Your task to perform on an android device: refresh tabs in the chrome app Image 0: 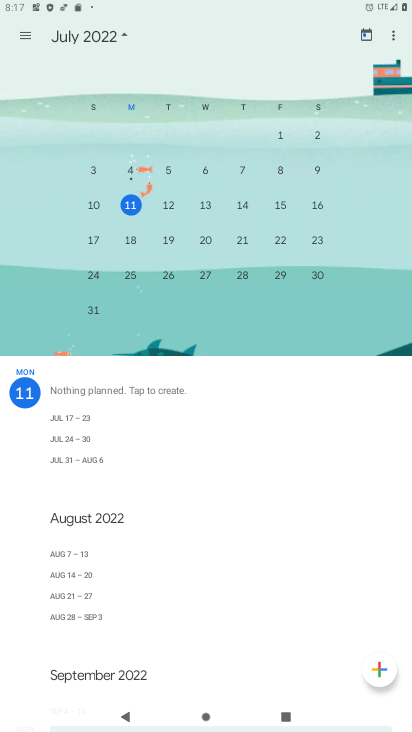
Step 0: press home button
Your task to perform on an android device: refresh tabs in the chrome app Image 1: 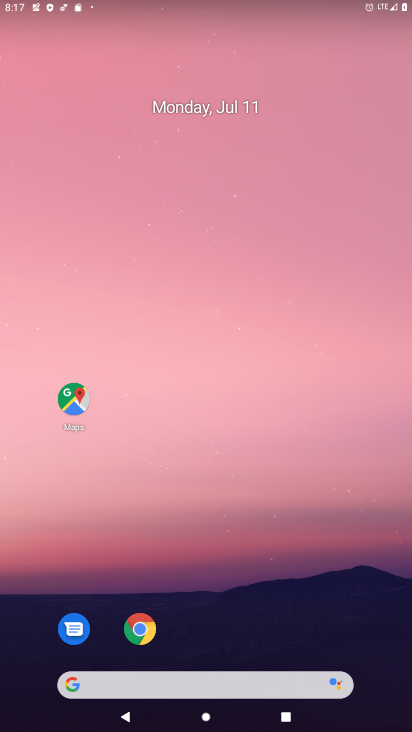
Step 1: click (144, 627)
Your task to perform on an android device: refresh tabs in the chrome app Image 2: 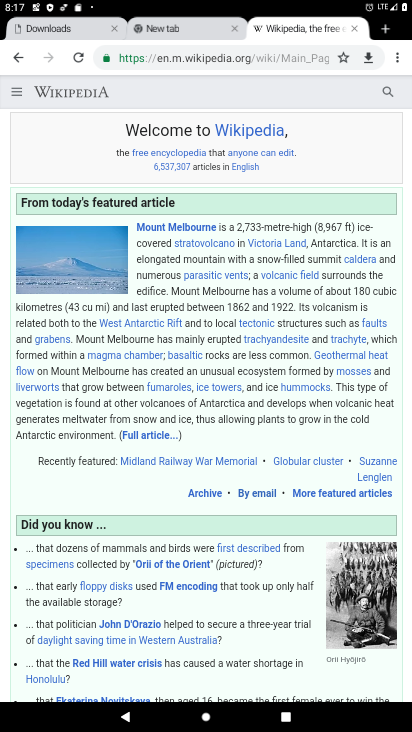
Step 2: click (395, 56)
Your task to perform on an android device: refresh tabs in the chrome app Image 3: 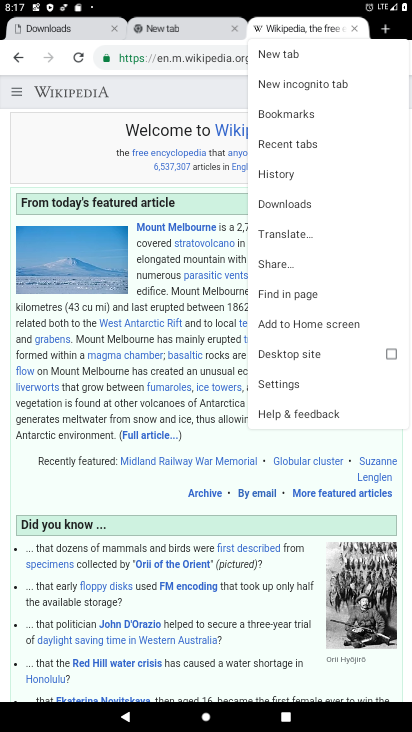
Step 3: click (209, 112)
Your task to perform on an android device: refresh tabs in the chrome app Image 4: 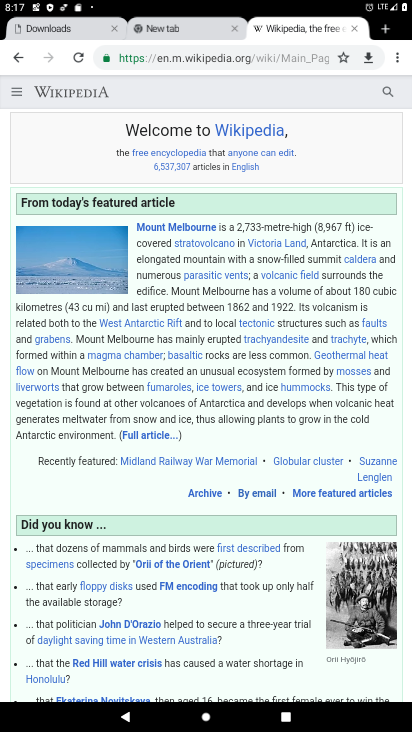
Step 4: drag from (230, 73) to (9, 77)
Your task to perform on an android device: refresh tabs in the chrome app Image 5: 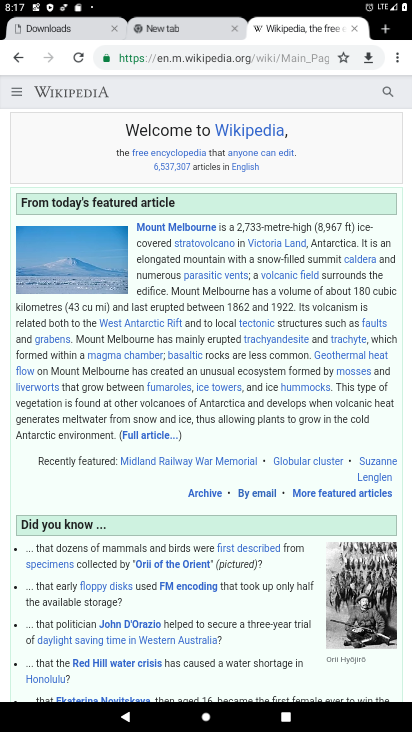
Step 5: click (79, 58)
Your task to perform on an android device: refresh tabs in the chrome app Image 6: 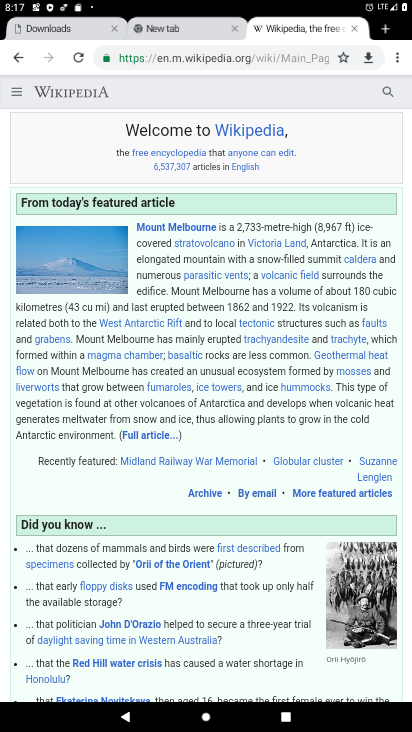
Step 6: task complete